Your task to perform on an android device: allow cookies in the chrome app Image 0: 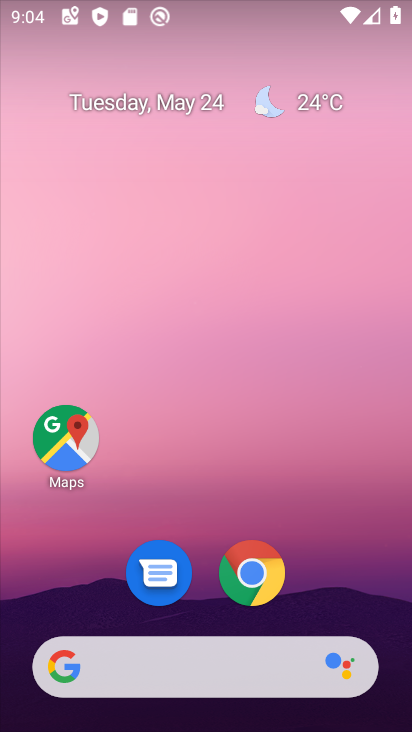
Step 0: click (258, 576)
Your task to perform on an android device: allow cookies in the chrome app Image 1: 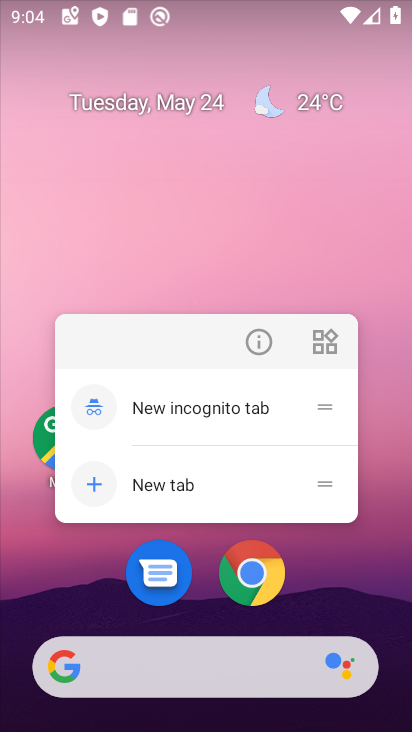
Step 1: click (265, 604)
Your task to perform on an android device: allow cookies in the chrome app Image 2: 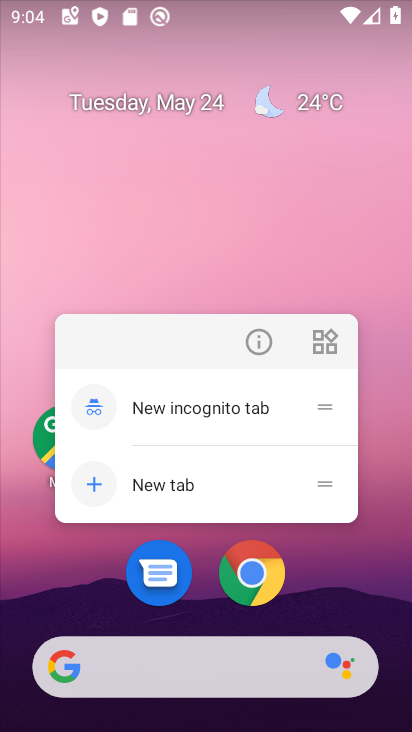
Step 2: click (265, 598)
Your task to perform on an android device: allow cookies in the chrome app Image 3: 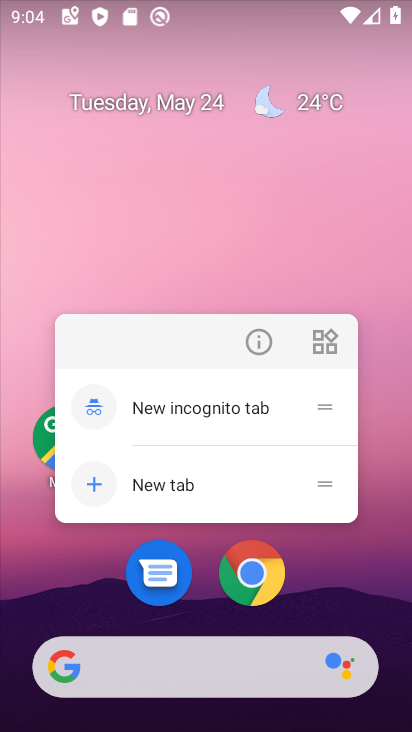
Step 3: click (269, 582)
Your task to perform on an android device: allow cookies in the chrome app Image 4: 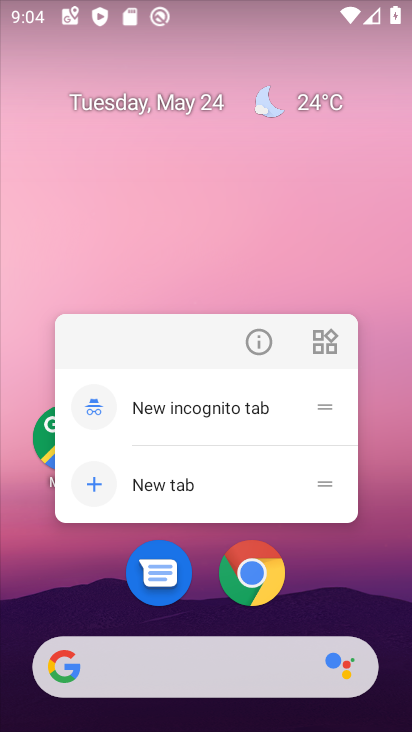
Step 4: click (268, 571)
Your task to perform on an android device: allow cookies in the chrome app Image 5: 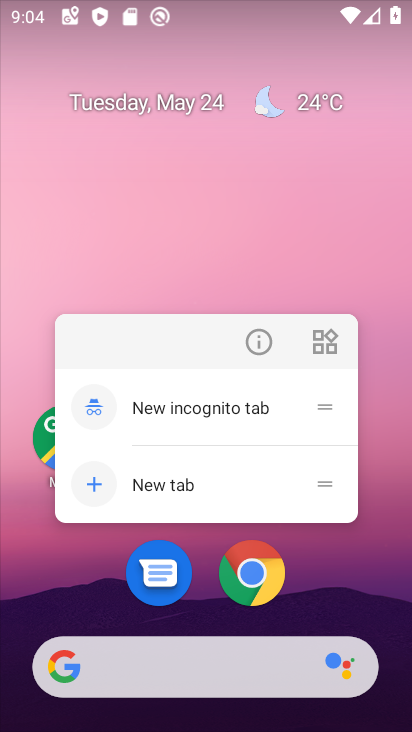
Step 5: click (265, 570)
Your task to perform on an android device: allow cookies in the chrome app Image 6: 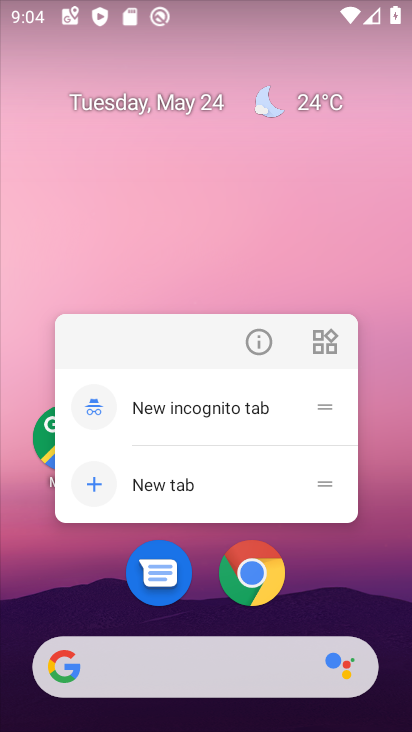
Step 6: click (240, 578)
Your task to perform on an android device: allow cookies in the chrome app Image 7: 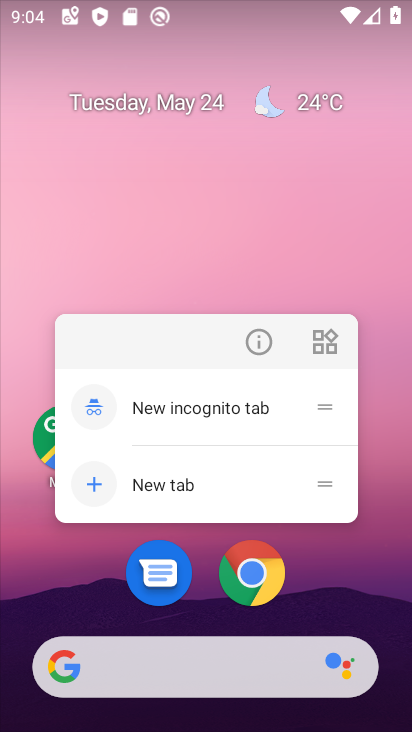
Step 7: click (251, 569)
Your task to perform on an android device: allow cookies in the chrome app Image 8: 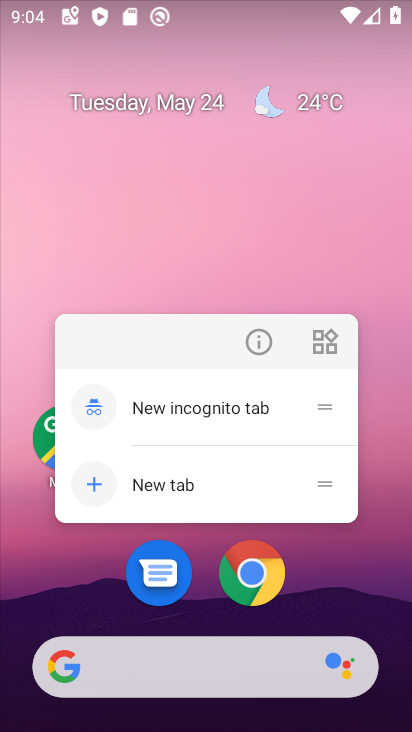
Step 8: click (261, 589)
Your task to perform on an android device: allow cookies in the chrome app Image 9: 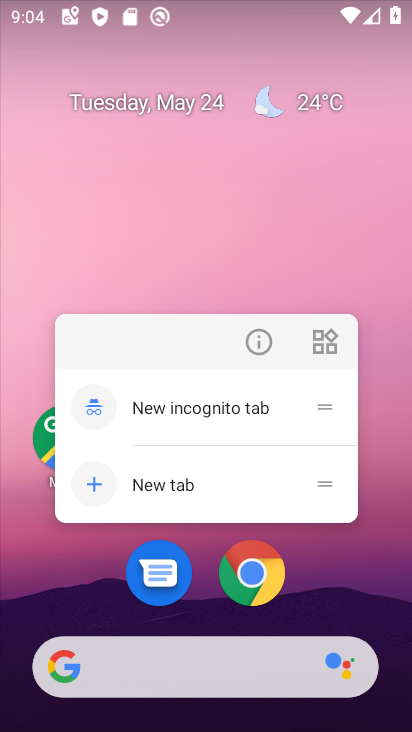
Step 9: click (266, 585)
Your task to perform on an android device: allow cookies in the chrome app Image 10: 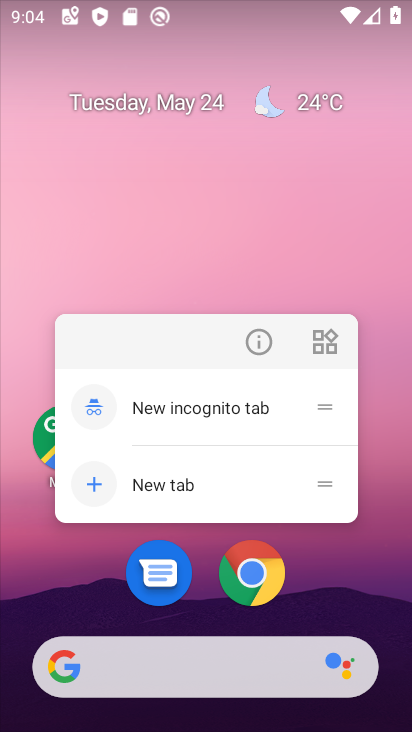
Step 10: click (267, 569)
Your task to perform on an android device: allow cookies in the chrome app Image 11: 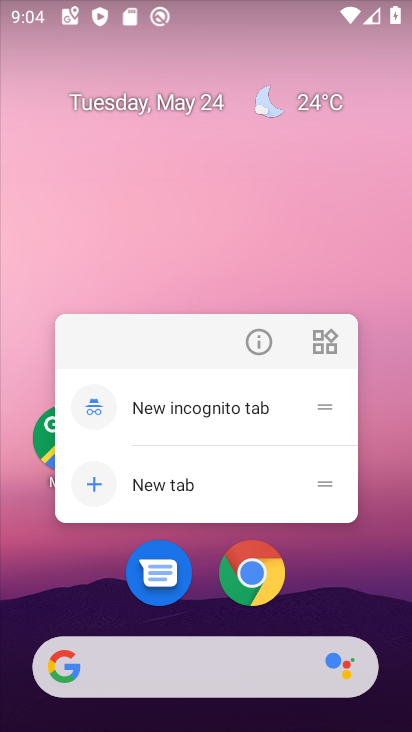
Step 11: click (256, 567)
Your task to perform on an android device: allow cookies in the chrome app Image 12: 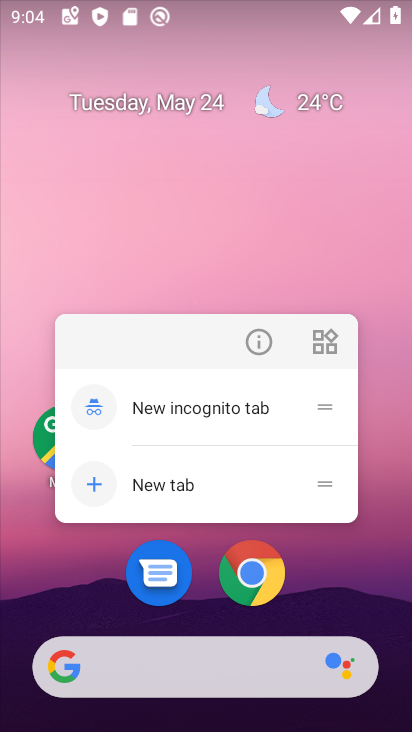
Step 12: click (251, 572)
Your task to perform on an android device: allow cookies in the chrome app Image 13: 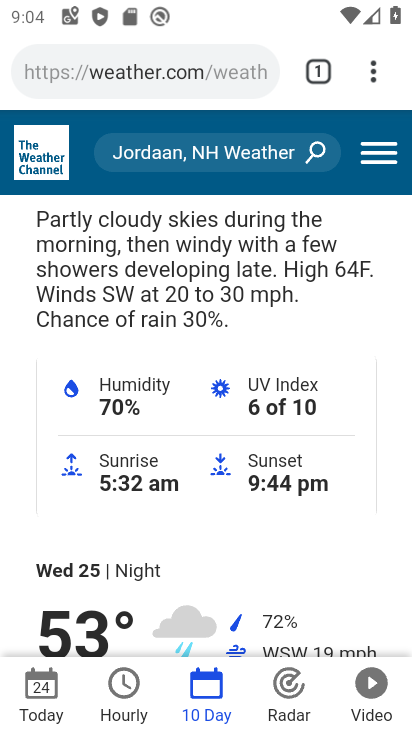
Step 13: drag from (384, 73) to (234, 581)
Your task to perform on an android device: allow cookies in the chrome app Image 14: 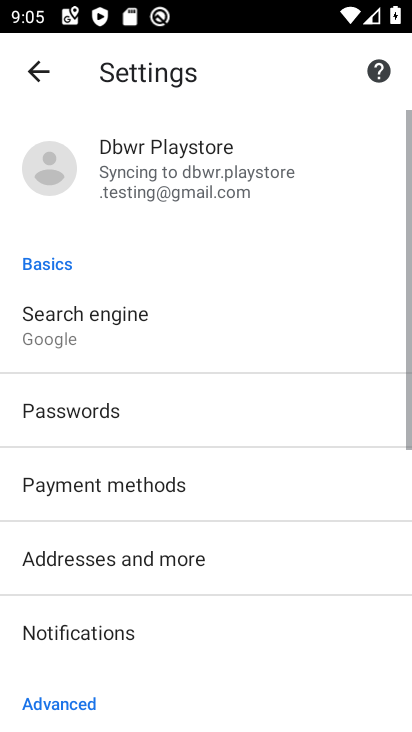
Step 14: drag from (228, 634) to (331, 325)
Your task to perform on an android device: allow cookies in the chrome app Image 15: 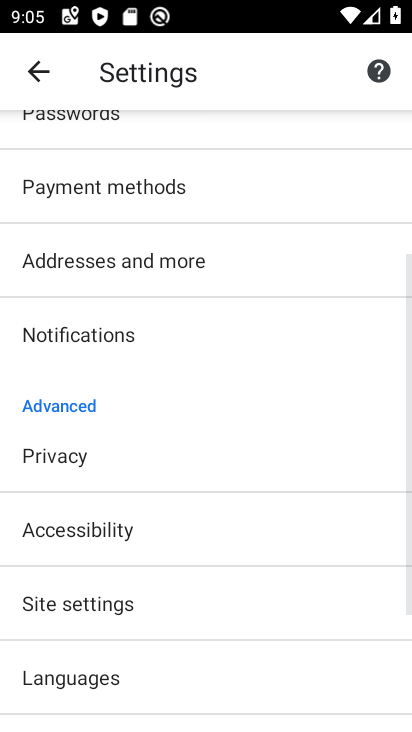
Step 15: click (115, 602)
Your task to perform on an android device: allow cookies in the chrome app Image 16: 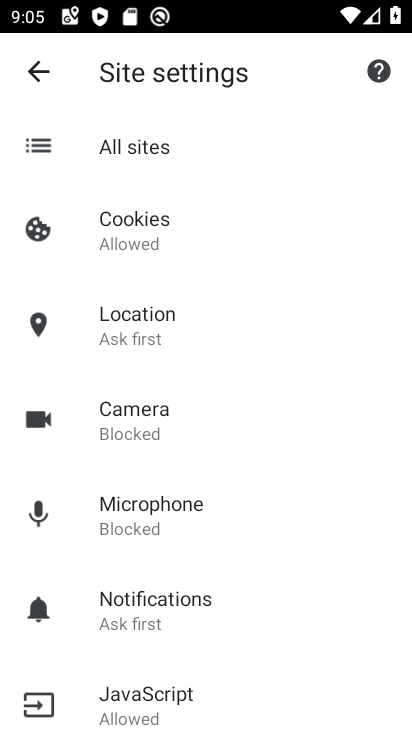
Step 16: drag from (153, 664) to (273, 611)
Your task to perform on an android device: allow cookies in the chrome app Image 17: 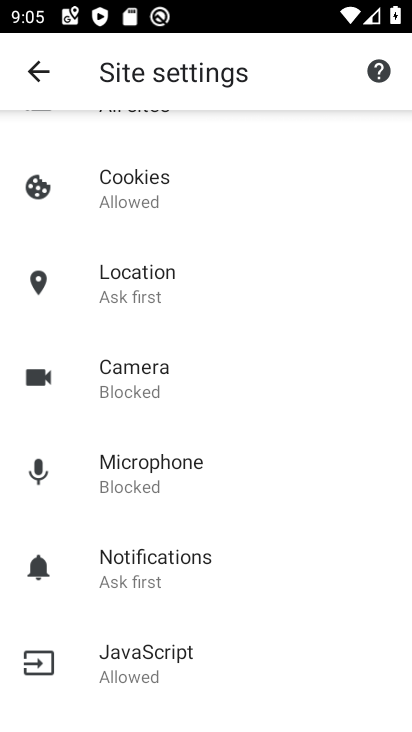
Step 17: drag from (237, 657) to (313, 615)
Your task to perform on an android device: allow cookies in the chrome app Image 18: 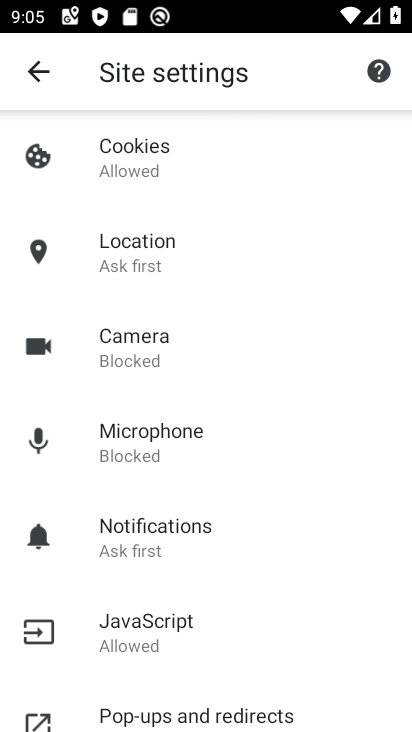
Step 18: drag from (180, 212) to (187, 580)
Your task to perform on an android device: allow cookies in the chrome app Image 19: 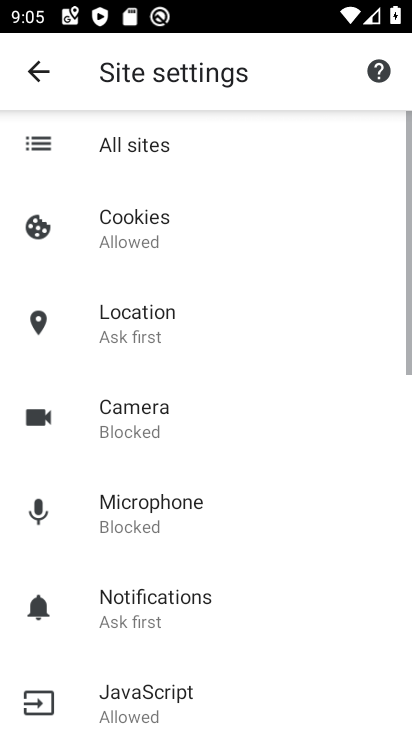
Step 19: click (213, 231)
Your task to perform on an android device: allow cookies in the chrome app Image 20: 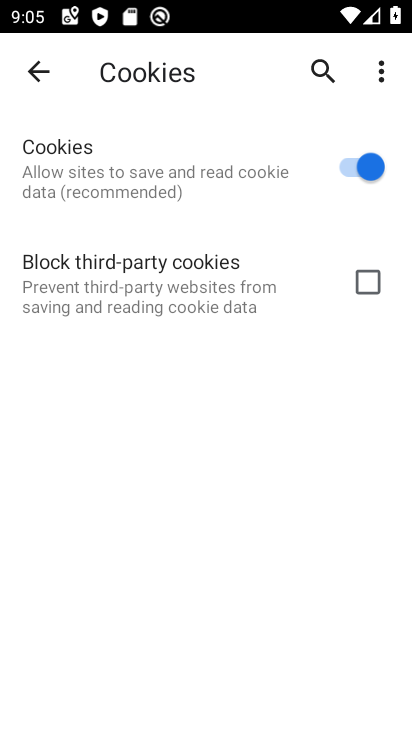
Step 20: task complete